Your task to perform on an android device: see tabs open on other devices in the chrome app Image 0: 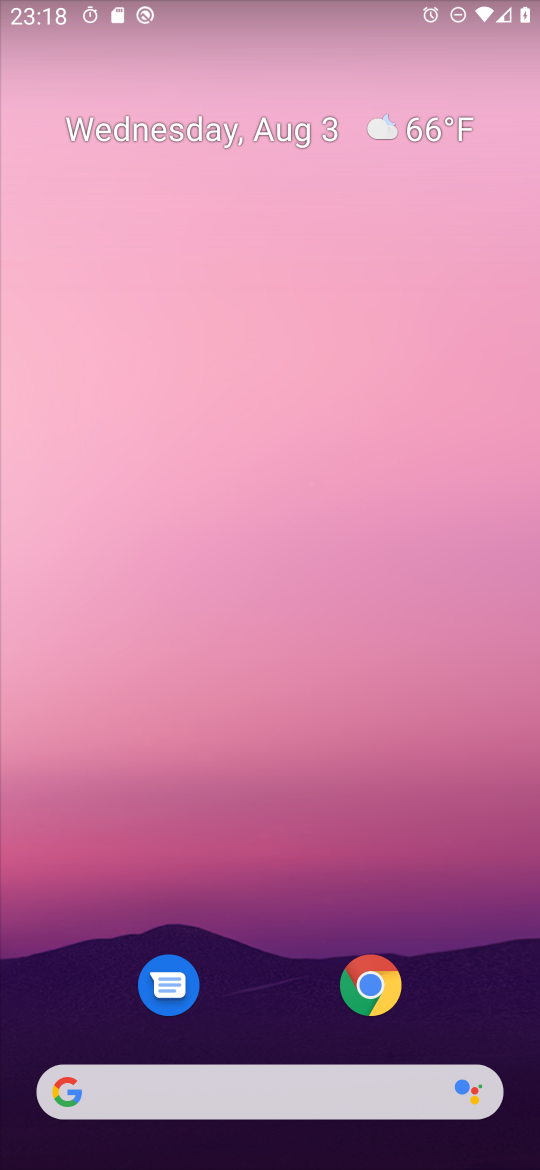
Step 0: click (359, 974)
Your task to perform on an android device: see tabs open on other devices in the chrome app Image 1: 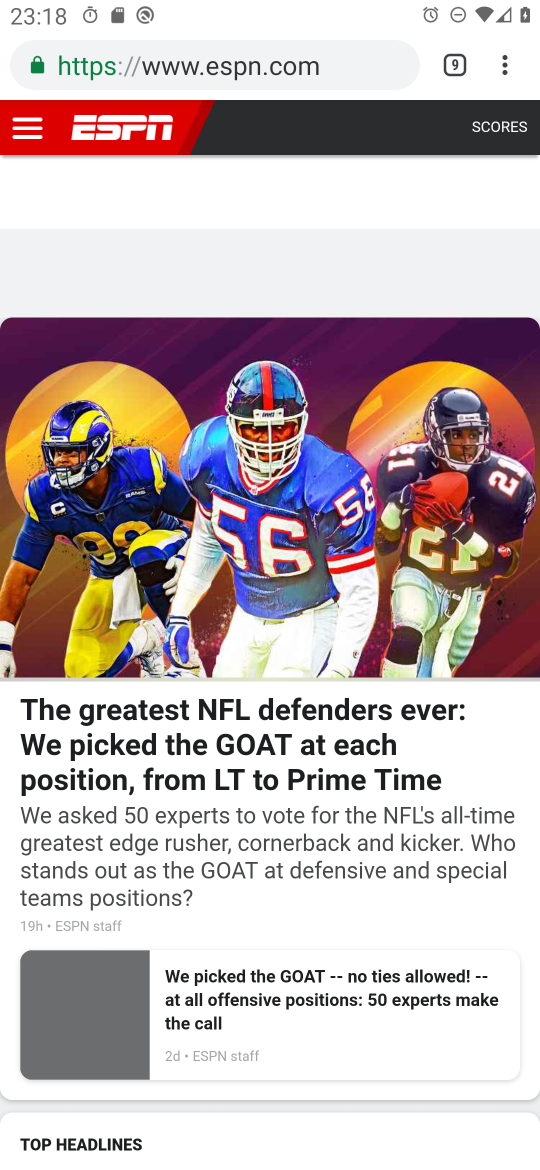
Step 1: click (502, 61)
Your task to perform on an android device: see tabs open on other devices in the chrome app Image 2: 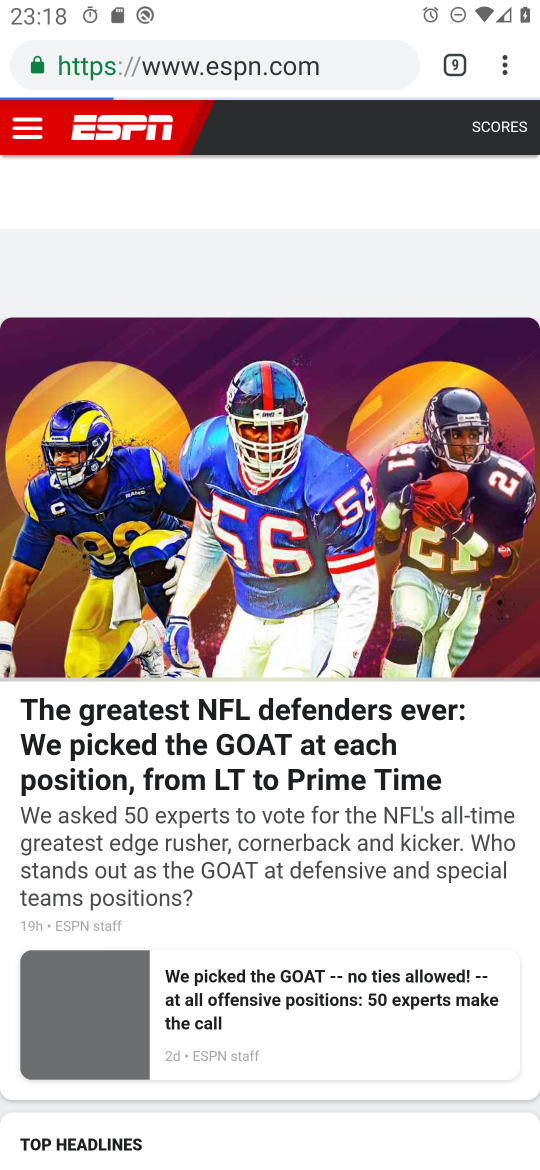
Step 2: task complete